Your task to perform on an android device: Set the phone to "Do not disturb". Image 0: 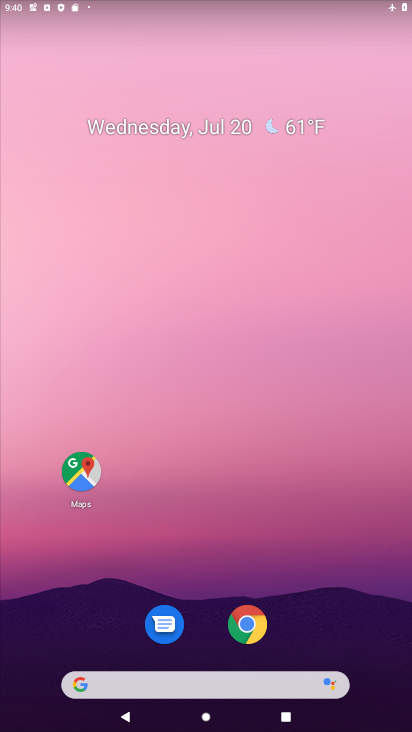
Step 0: drag from (230, 571) to (242, 219)
Your task to perform on an android device: Set the phone to "Do not disturb". Image 1: 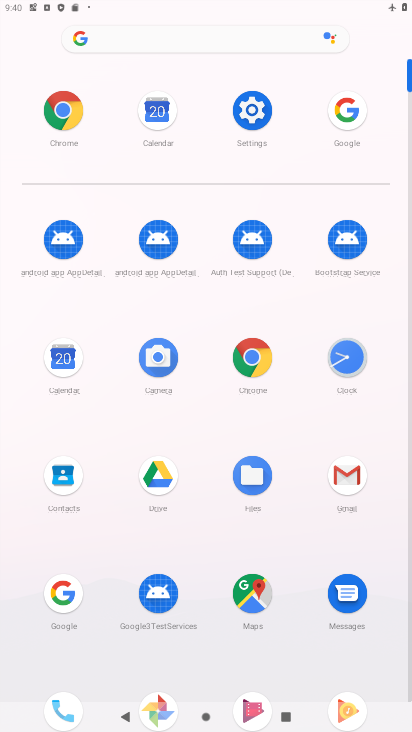
Step 1: click (255, 124)
Your task to perform on an android device: Set the phone to "Do not disturb". Image 2: 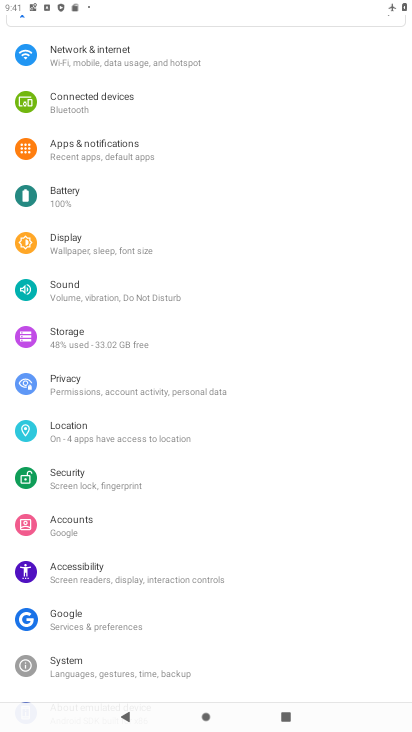
Step 2: click (100, 279)
Your task to perform on an android device: Set the phone to "Do not disturb". Image 3: 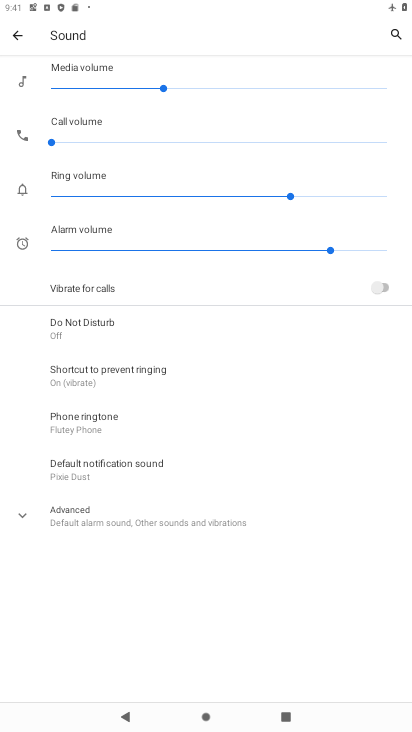
Step 3: click (97, 333)
Your task to perform on an android device: Set the phone to "Do not disturb". Image 4: 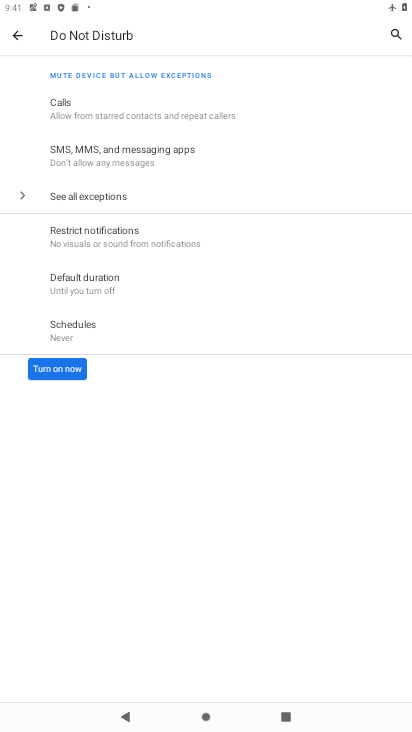
Step 4: click (71, 363)
Your task to perform on an android device: Set the phone to "Do not disturb". Image 5: 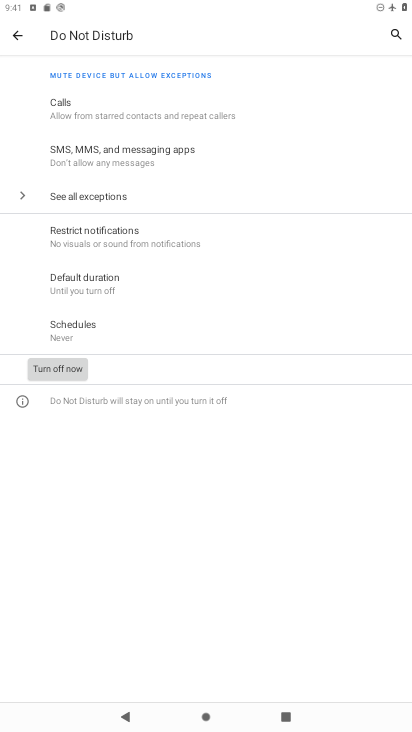
Step 5: task complete